Your task to perform on an android device: Open the phone app and click the voicemail tab. Image 0: 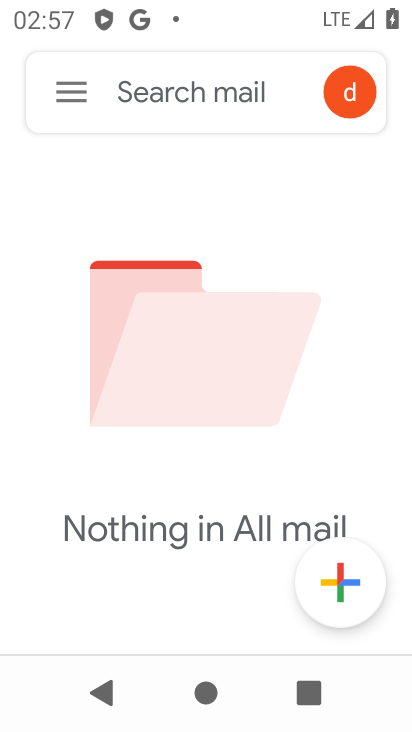
Step 0: press home button
Your task to perform on an android device: Open the phone app and click the voicemail tab. Image 1: 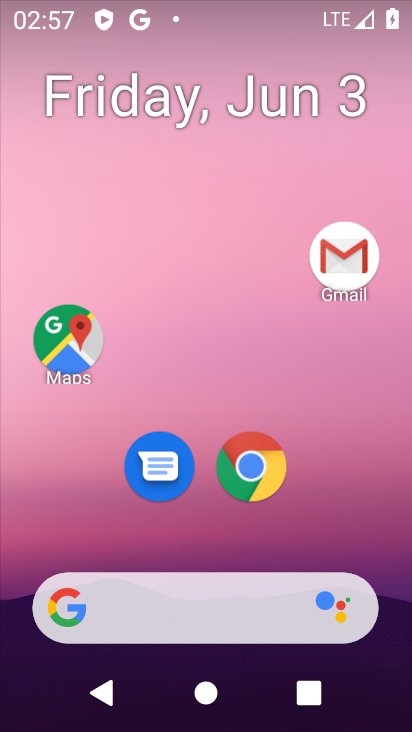
Step 1: drag from (194, 555) to (163, 243)
Your task to perform on an android device: Open the phone app and click the voicemail tab. Image 2: 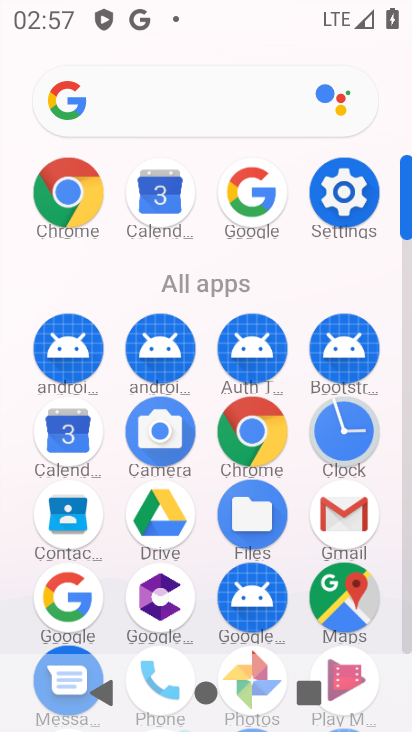
Step 2: drag from (180, 590) to (185, 314)
Your task to perform on an android device: Open the phone app and click the voicemail tab. Image 3: 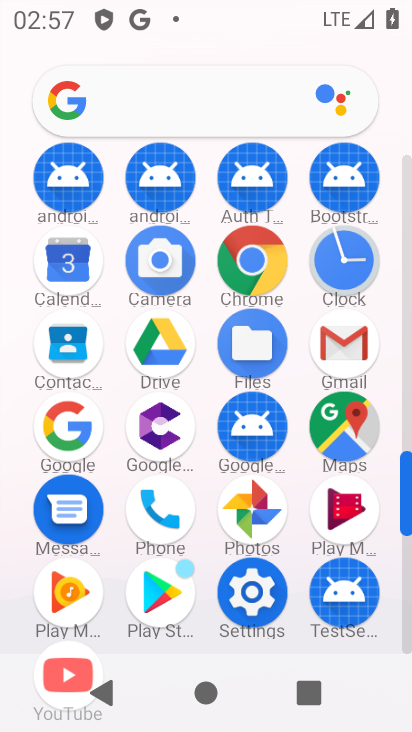
Step 3: click (158, 525)
Your task to perform on an android device: Open the phone app and click the voicemail tab. Image 4: 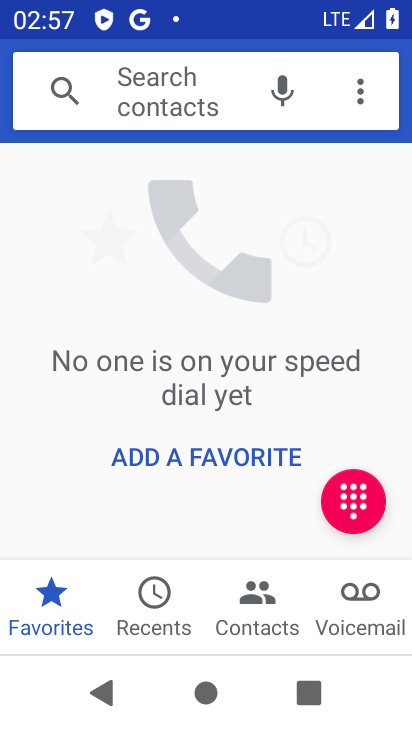
Step 4: click (364, 622)
Your task to perform on an android device: Open the phone app and click the voicemail tab. Image 5: 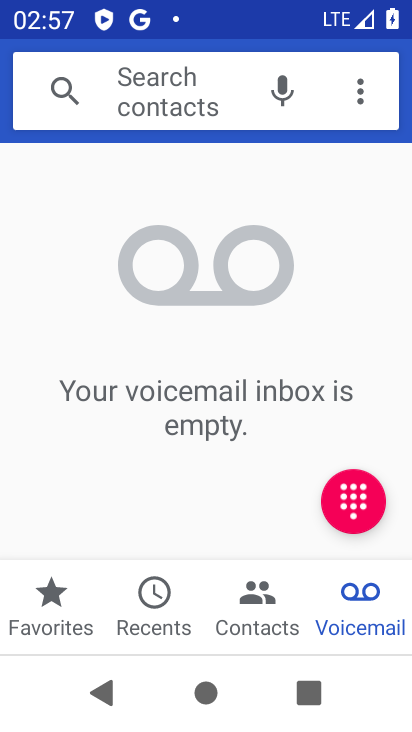
Step 5: task complete